Your task to perform on an android device: What's the weather today? Image 0: 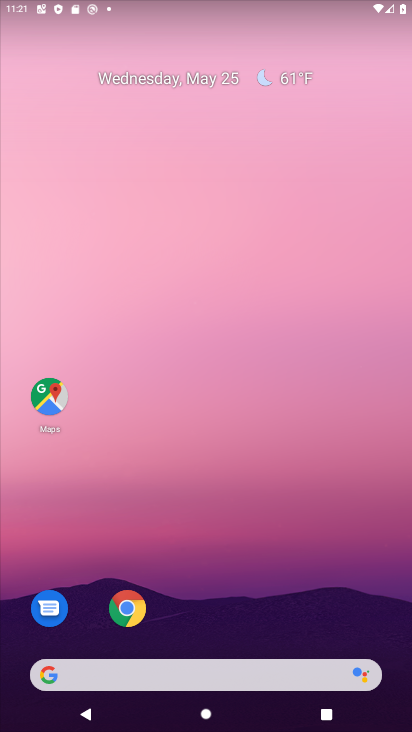
Step 0: click (275, 75)
Your task to perform on an android device: What's the weather today? Image 1: 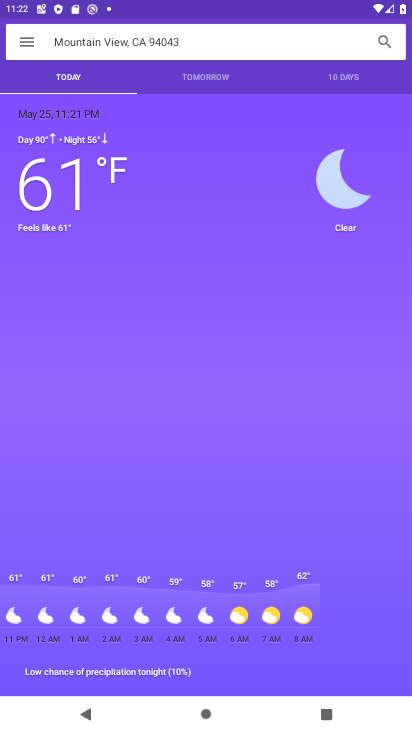
Step 1: task complete